Your task to perform on an android device: Open calendar and show me the second week of next month Image 0: 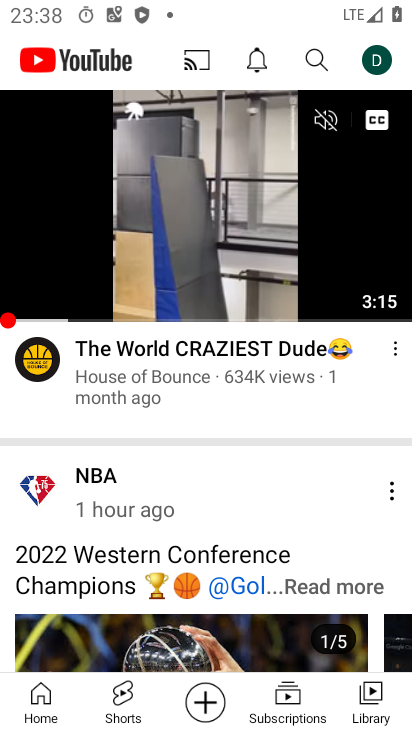
Step 0: press home button
Your task to perform on an android device: Open calendar and show me the second week of next month Image 1: 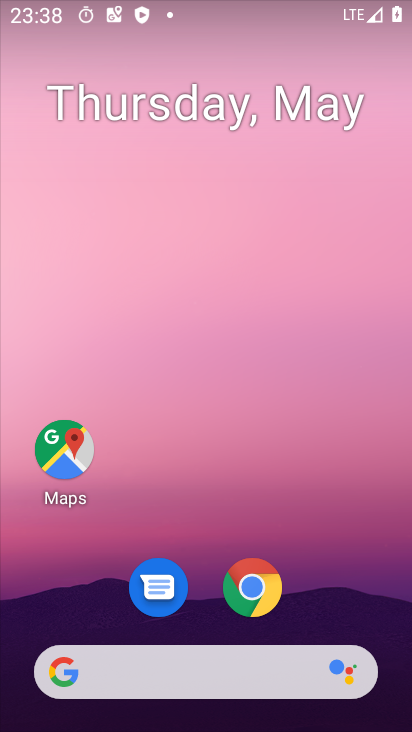
Step 1: drag from (288, 594) to (295, 18)
Your task to perform on an android device: Open calendar and show me the second week of next month Image 2: 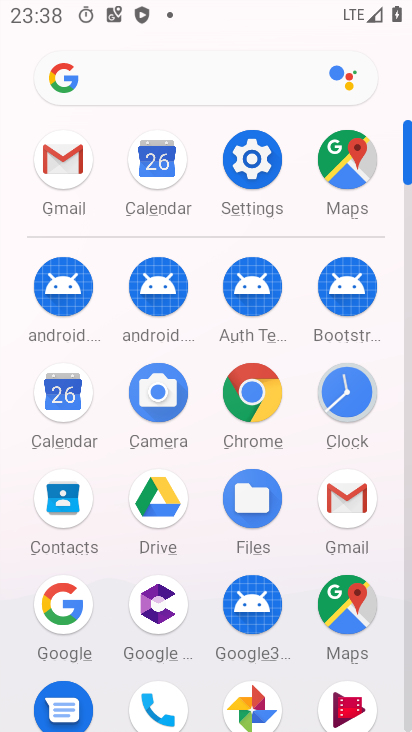
Step 2: click (153, 169)
Your task to perform on an android device: Open calendar and show me the second week of next month Image 3: 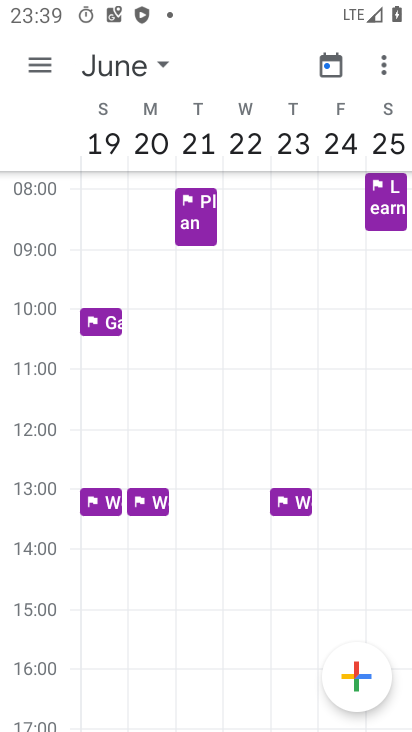
Step 3: task complete